Your task to perform on an android device: Open Android settings Image 0: 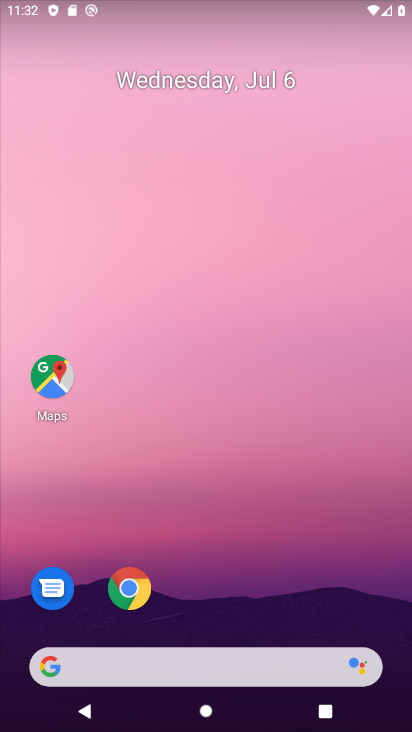
Step 0: drag from (188, 618) to (253, 41)
Your task to perform on an android device: Open Android settings Image 1: 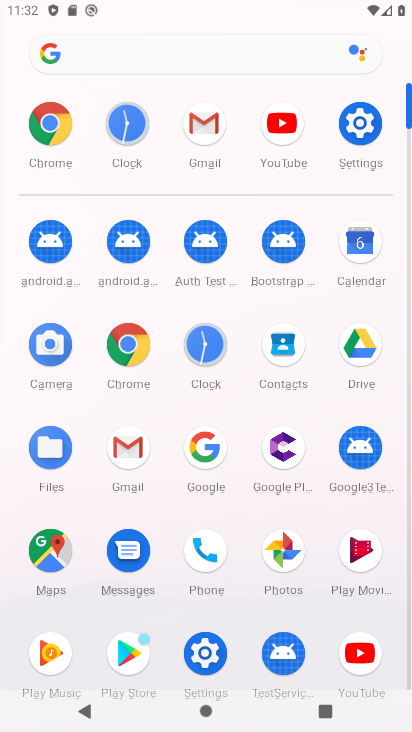
Step 1: click (364, 117)
Your task to perform on an android device: Open Android settings Image 2: 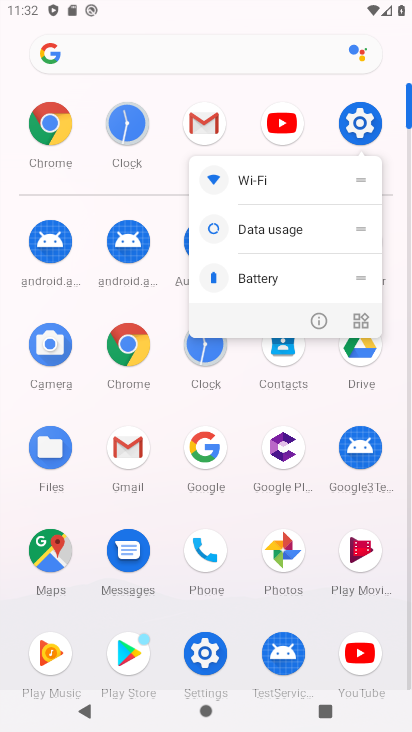
Step 2: click (318, 320)
Your task to perform on an android device: Open Android settings Image 3: 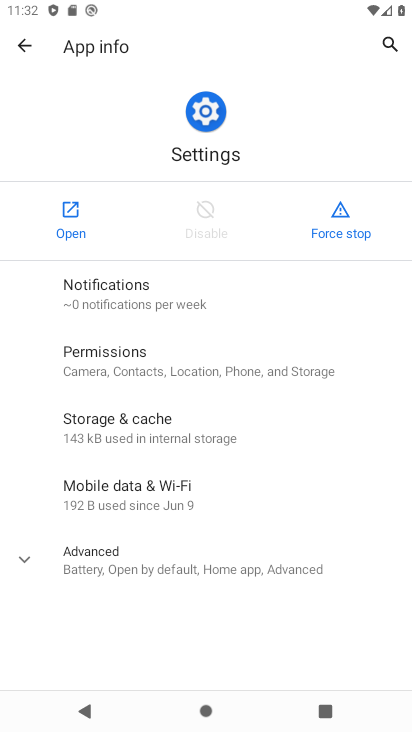
Step 3: click (69, 212)
Your task to perform on an android device: Open Android settings Image 4: 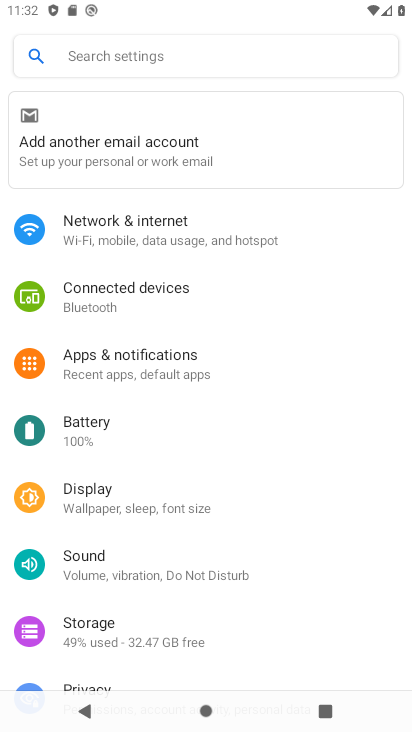
Step 4: drag from (146, 398) to (225, 173)
Your task to perform on an android device: Open Android settings Image 5: 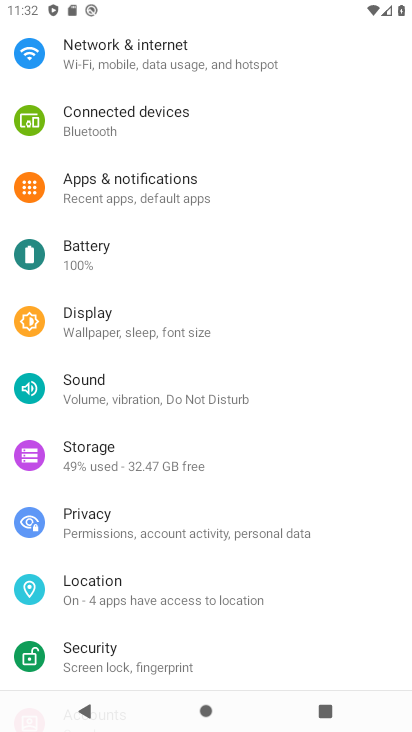
Step 5: drag from (190, 641) to (257, 45)
Your task to perform on an android device: Open Android settings Image 6: 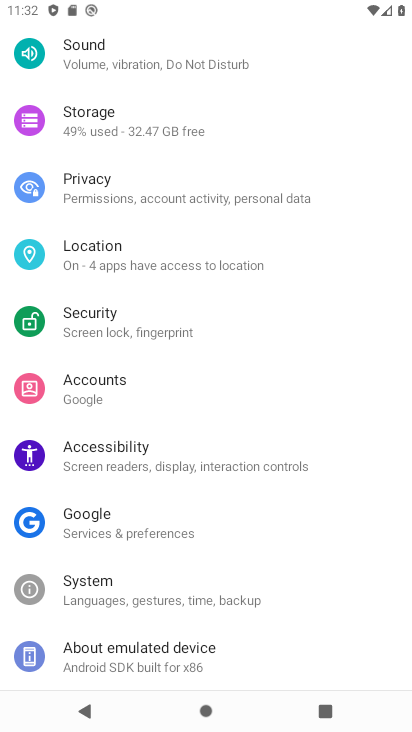
Step 6: click (140, 658)
Your task to perform on an android device: Open Android settings Image 7: 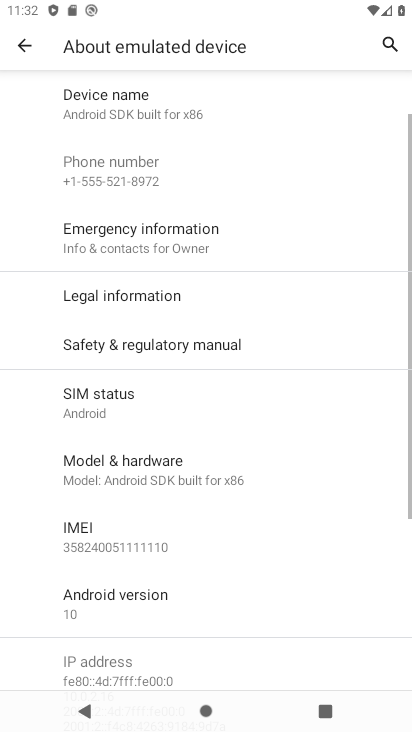
Step 7: drag from (153, 575) to (136, 249)
Your task to perform on an android device: Open Android settings Image 8: 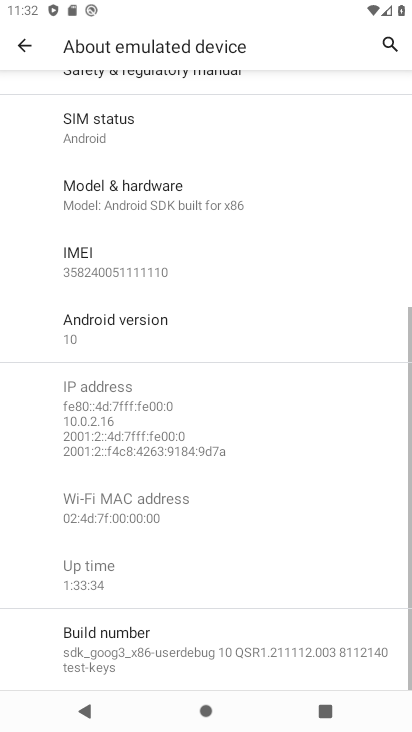
Step 8: drag from (222, 506) to (238, 50)
Your task to perform on an android device: Open Android settings Image 9: 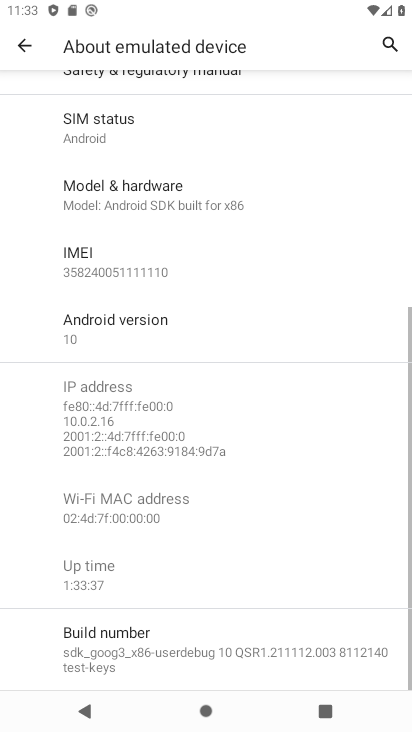
Step 9: click (111, 332)
Your task to perform on an android device: Open Android settings Image 10: 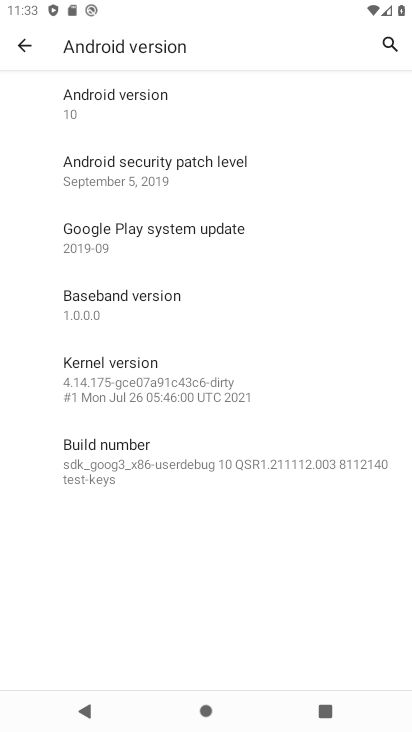
Step 10: click (132, 100)
Your task to perform on an android device: Open Android settings Image 11: 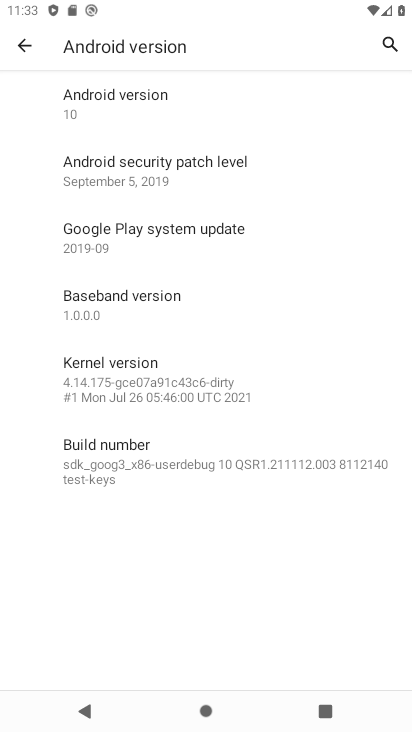
Step 11: task complete